Your task to perform on an android device: Go to eBay Image 0: 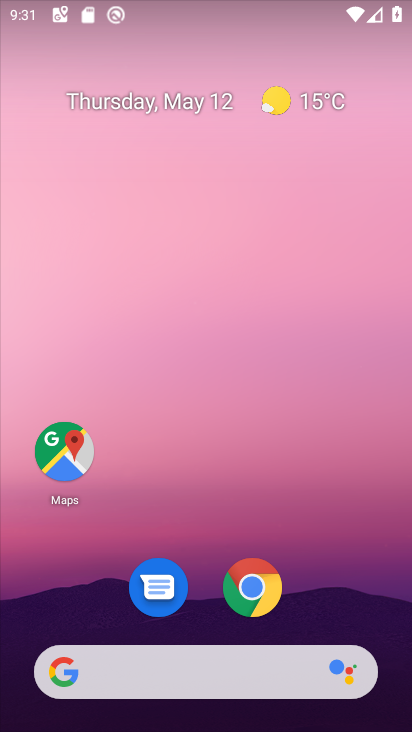
Step 0: drag from (383, 620) to (263, 13)
Your task to perform on an android device: Go to eBay Image 1: 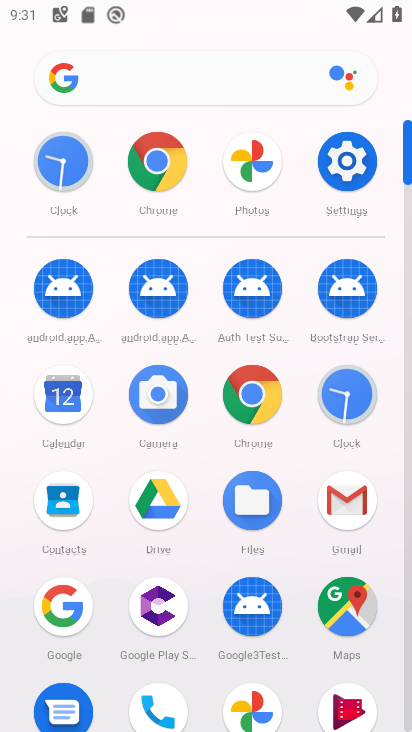
Step 1: click (266, 394)
Your task to perform on an android device: Go to eBay Image 2: 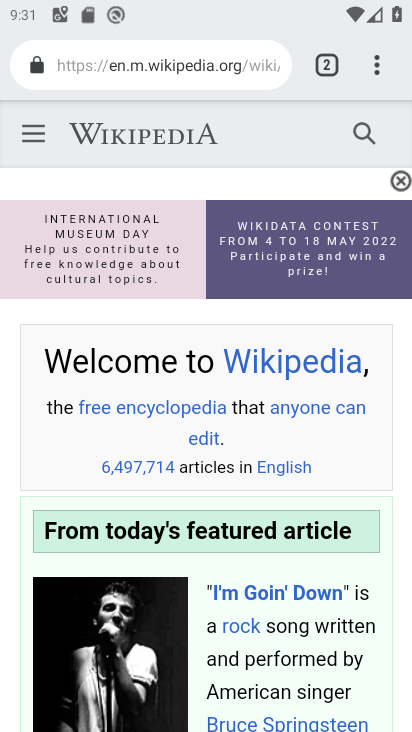
Step 2: press back button
Your task to perform on an android device: Go to eBay Image 3: 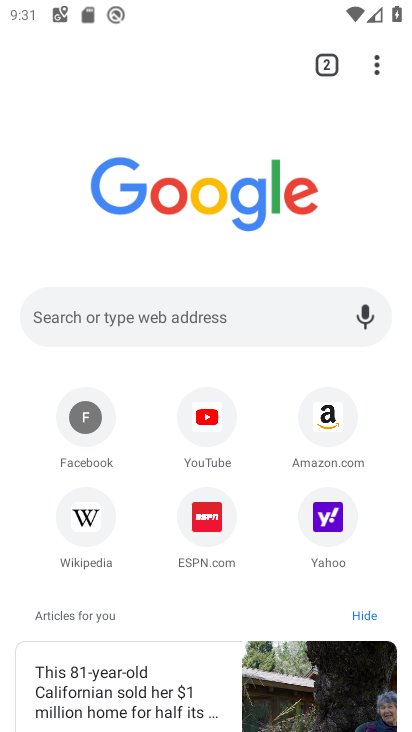
Step 3: click (173, 314)
Your task to perform on an android device: Go to eBay Image 4: 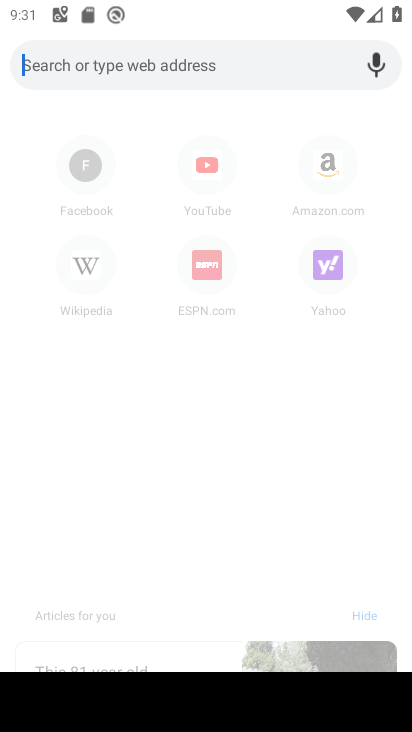
Step 4: type "ebay"
Your task to perform on an android device: Go to eBay Image 5: 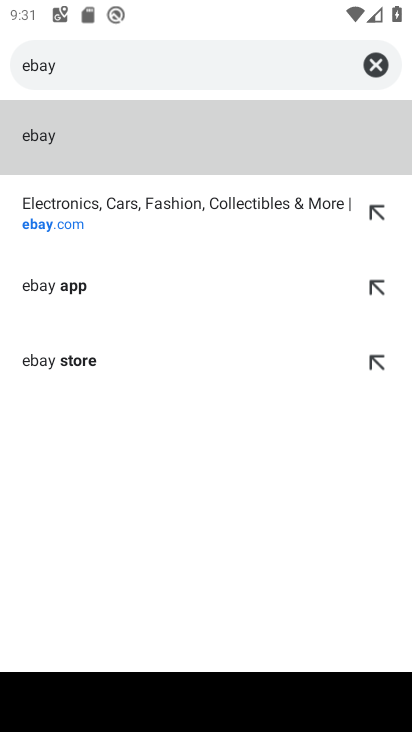
Step 5: click (234, 145)
Your task to perform on an android device: Go to eBay Image 6: 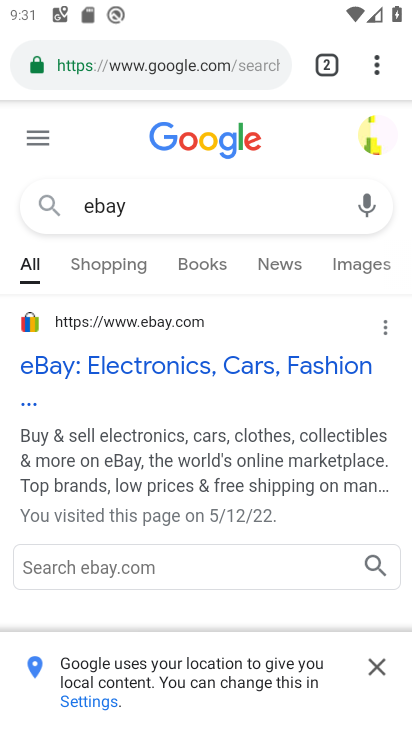
Step 6: click (171, 350)
Your task to perform on an android device: Go to eBay Image 7: 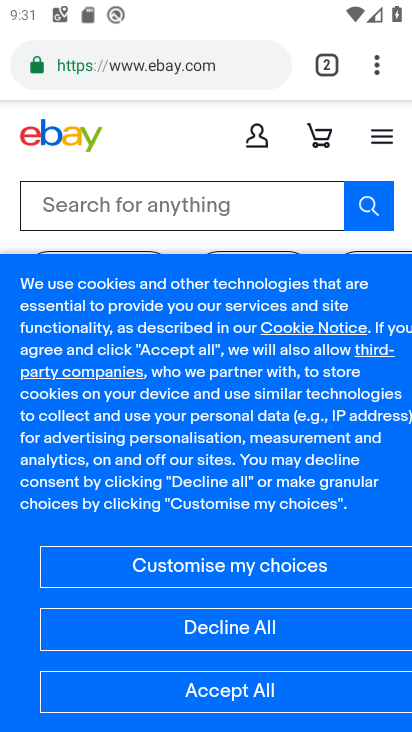
Step 7: task complete